Your task to perform on an android device: check storage Image 0: 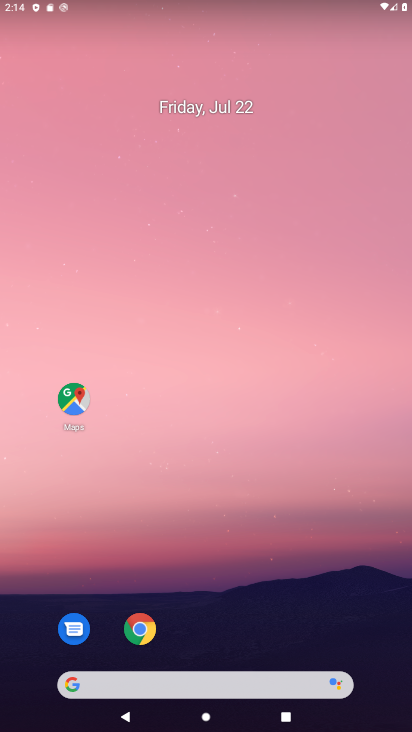
Step 0: drag from (225, 642) to (260, 119)
Your task to perform on an android device: check storage Image 1: 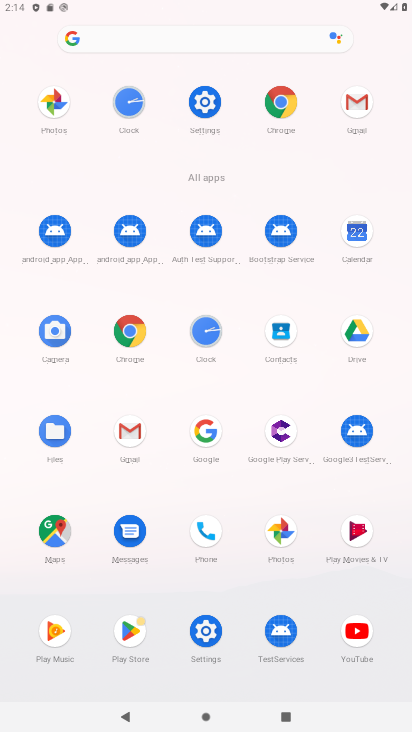
Step 1: click (215, 99)
Your task to perform on an android device: check storage Image 2: 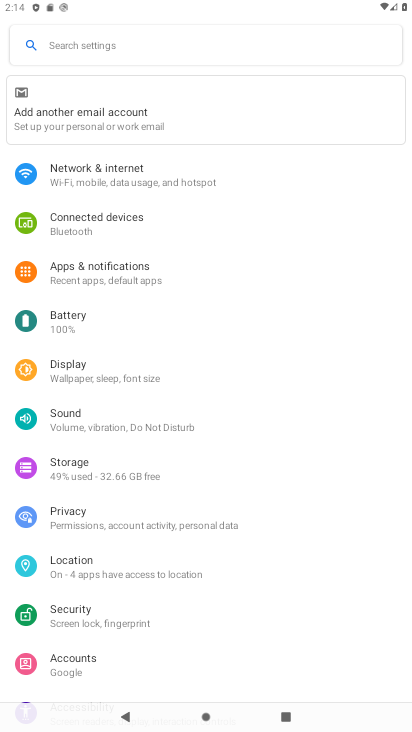
Step 2: click (129, 479)
Your task to perform on an android device: check storage Image 3: 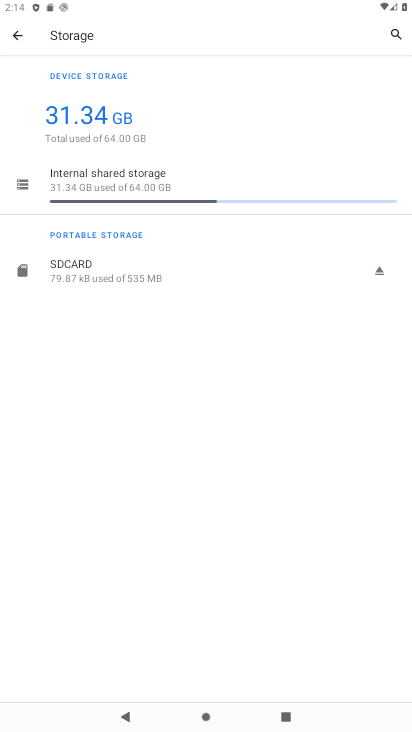
Step 3: task complete